Your task to perform on an android device: Open Google Chrome and click the shortcut for Amazon.com Image 0: 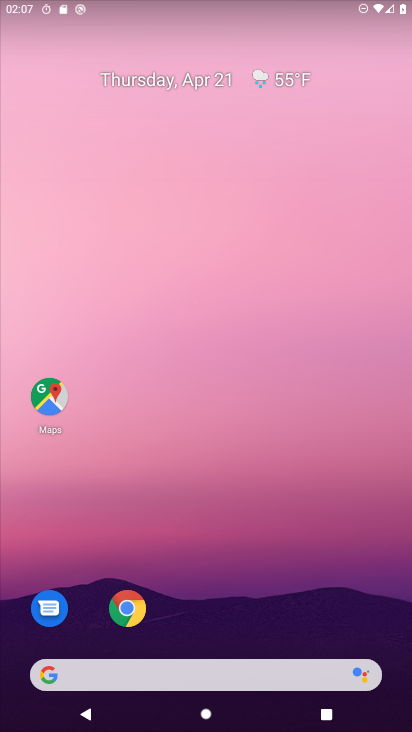
Step 0: click (125, 615)
Your task to perform on an android device: Open Google Chrome and click the shortcut for Amazon.com Image 1: 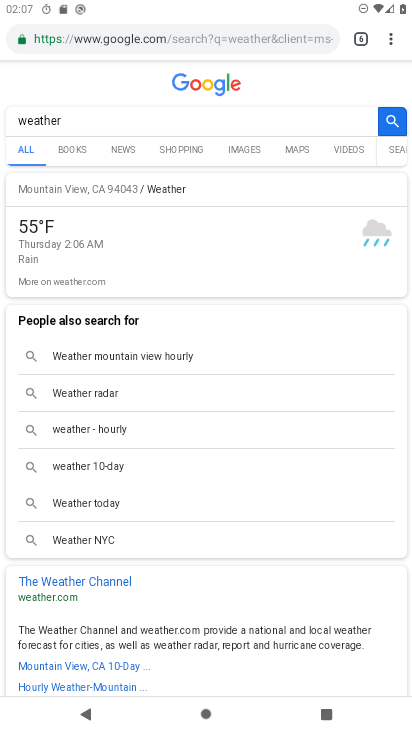
Step 1: click (360, 39)
Your task to perform on an android device: Open Google Chrome and click the shortcut for Amazon.com Image 2: 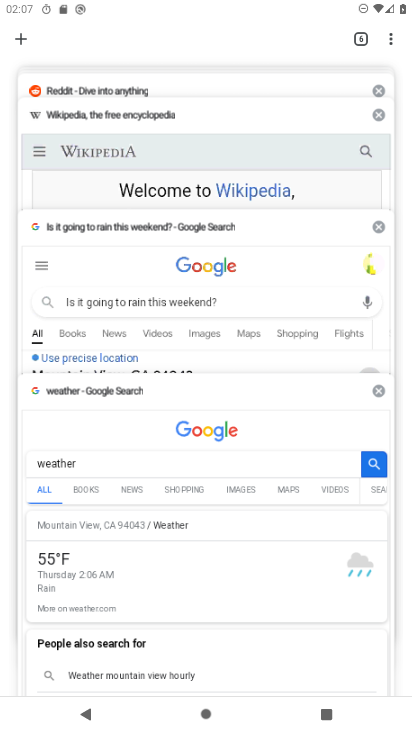
Step 2: click (19, 40)
Your task to perform on an android device: Open Google Chrome and click the shortcut for Amazon.com Image 3: 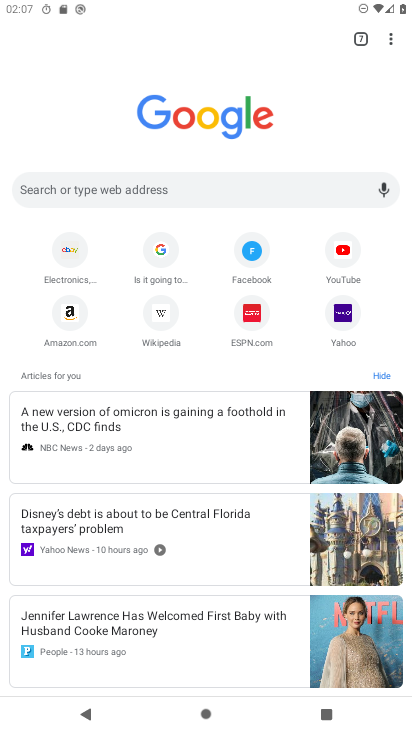
Step 3: click (72, 315)
Your task to perform on an android device: Open Google Chrome and click the shortcut for Amazon.com Image 4: 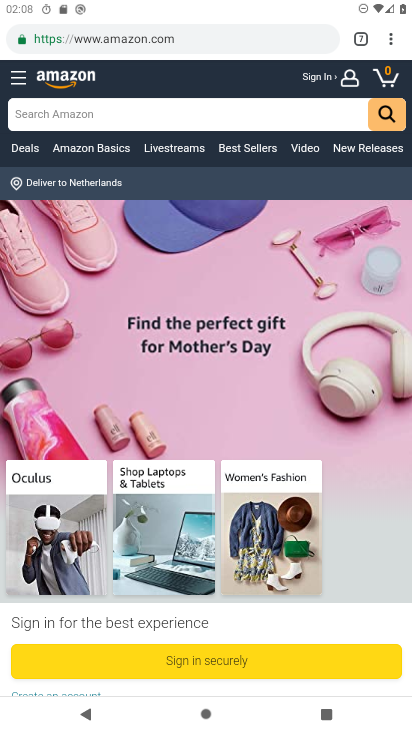
Step 4: task complete